Your task to perform on an android device: Open calendar and show me the third week of next month Image 0: 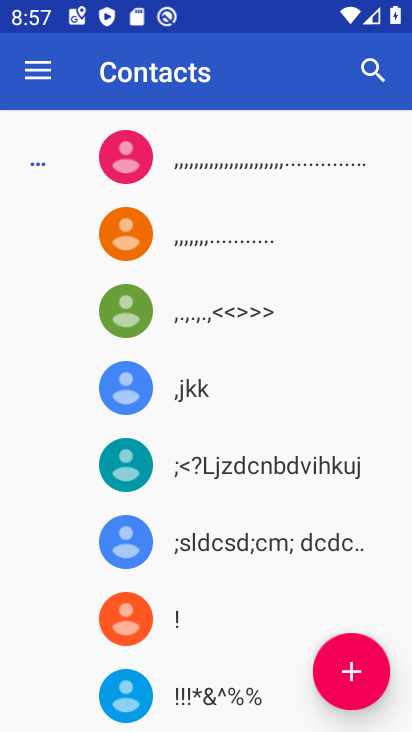
Step 0: press home button
Your task to perform on an android device: Open calendar and show me the third week of next month Image 1: 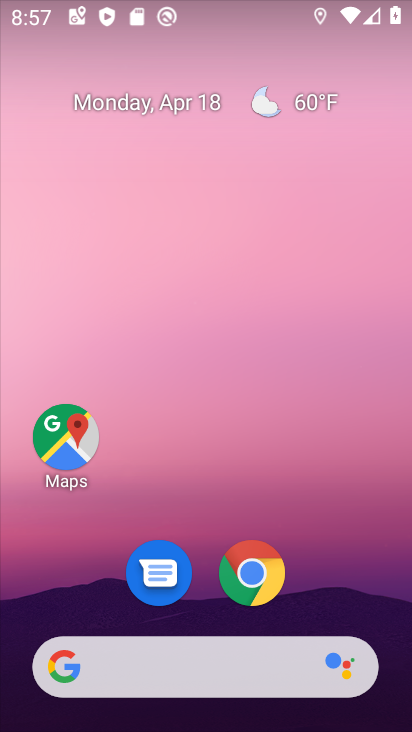
Step 1: drag from (336, 485) to (316, 30)
Your task to perform on an android device: Open calendar and show me the third week of next month Image 2: 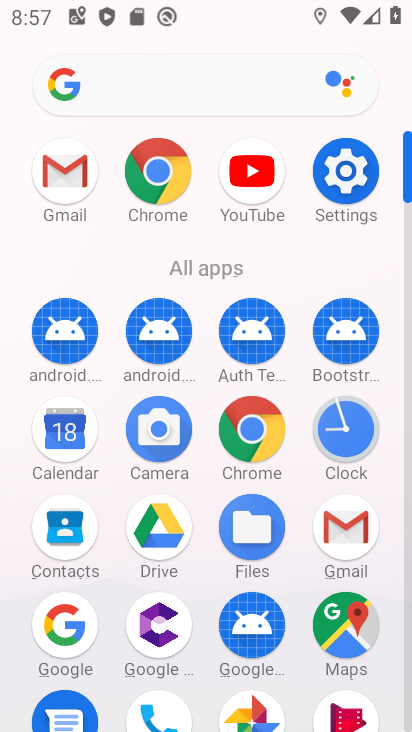
Step 2: click (63, 438)
Your task to perform on an android device: Open calendar and show me the third week of next month Image 3: 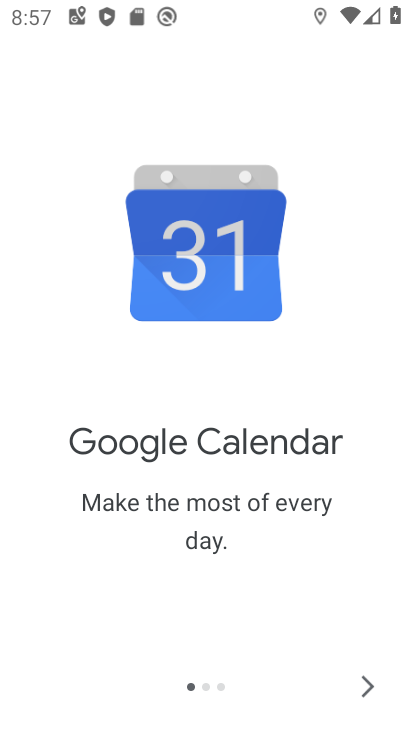
Step 3: click (372, 686)
Your task to perform on an android device: Open calendar and show me the third week of next month Image 4: 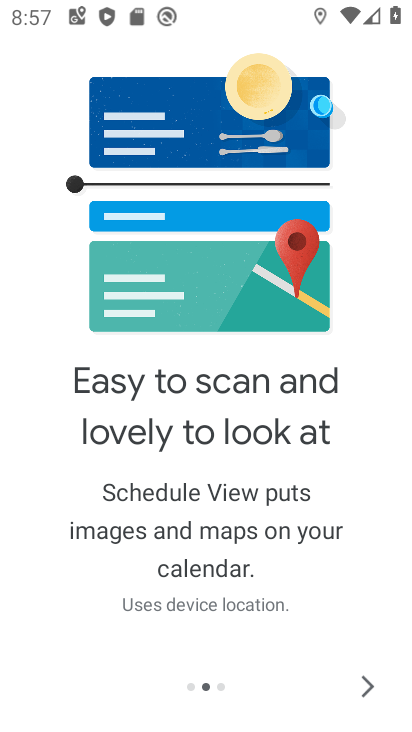
Step 4: click (370, 685)
Your task to perform on an android device: Open calendar and show me the third week of next month Image 5: 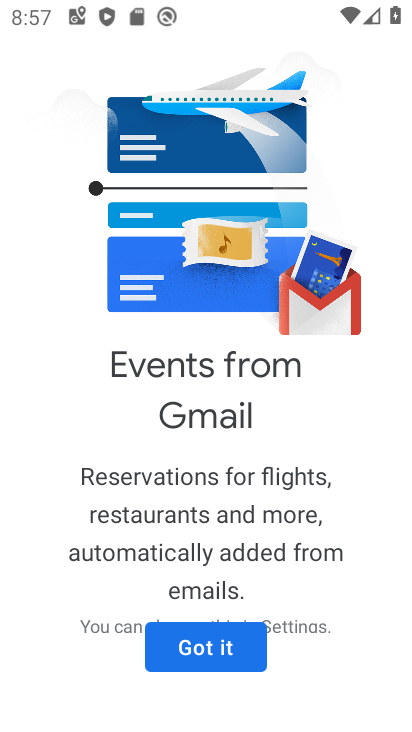
Step 5: click (196, 637)
Your task to perform on an android device: Open calendar and show me the third week of next month Image 6: 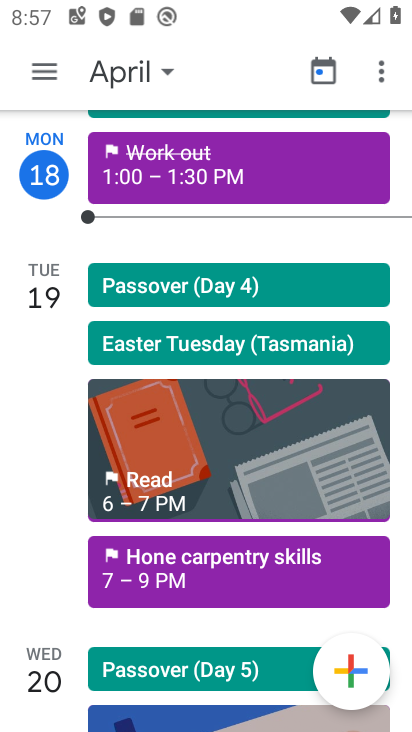
Step 6: click (52, 71)
Your task to perform on an android device: Open calendar and show me the third week of next month Image 7: 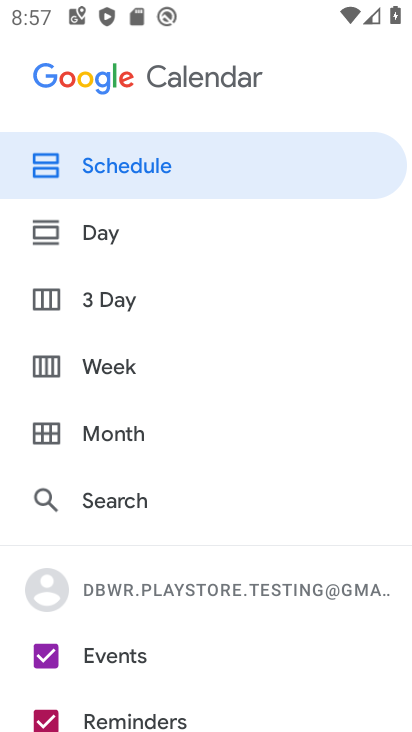
Step 7: click (111, 433)
Your task to perform on an android device: Open calendar and show me the third week of next month Image 8: 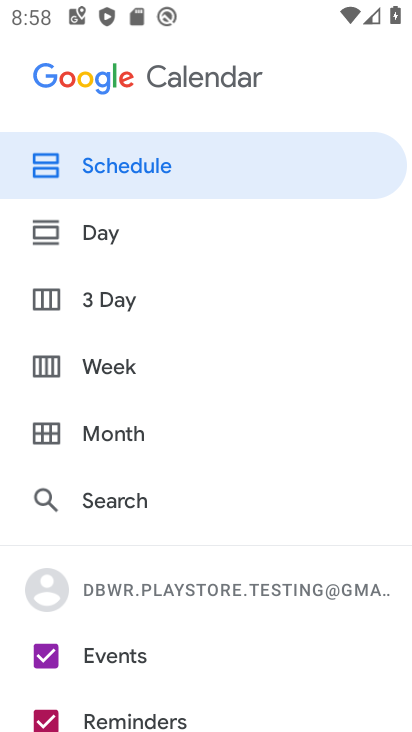
Step 8: click (111, 433)
Your task to perform on an android device: Open calendar and show me the third week of next month Image 9: 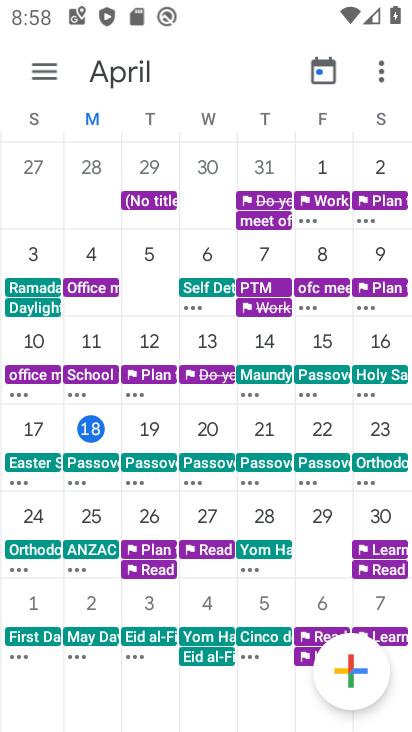
Step 9: drag from (377, 495) to (1, 525)
Your task to perform on an android device: Open calendar and show me the third week of next month Image 10: 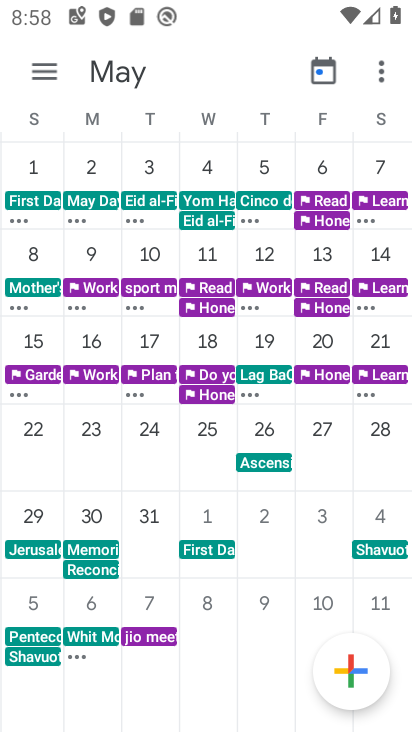
Step 10: click (33, 341)
Your task to perform on an android device: Open calendar and show me the third week of next month Image 11: 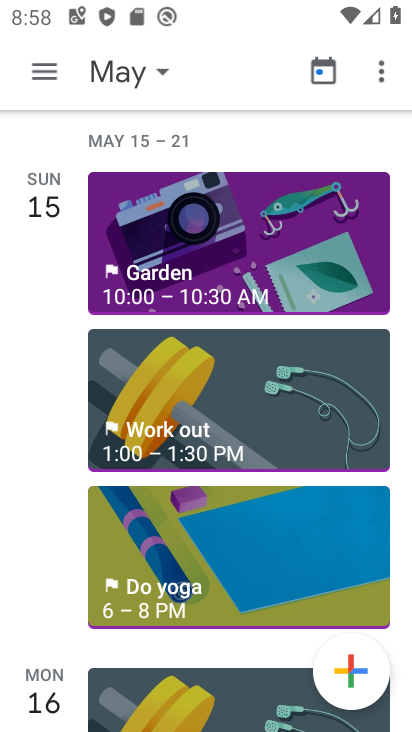
Step 11: click (40, 77)
Your task to perform on an android device: Open calendar and show me the third week of next month Image 12: 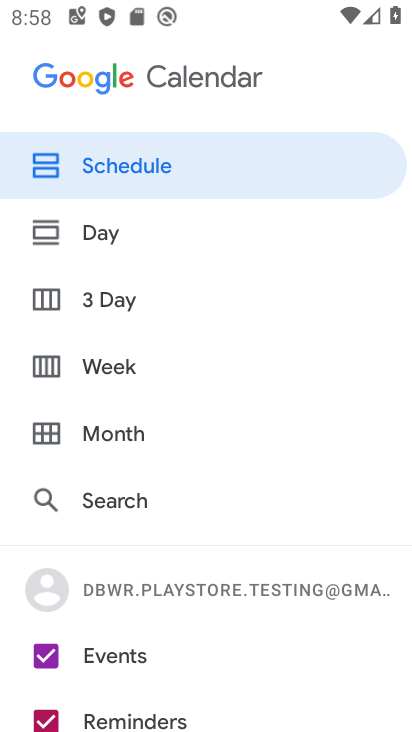
Step 12: click (96, 366)
Your task to perform on an android device: Open calendar and show me the third week of next month Image 13: 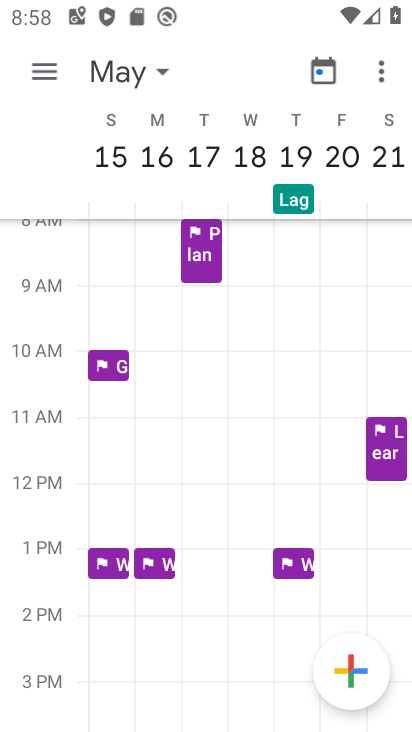
Step 13: task complete